Your task to perform on an android device: add a contact Image 0: 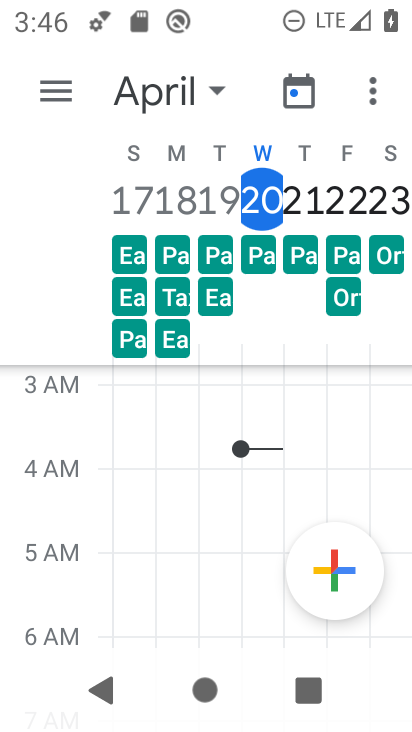
Step 0: press home button
Your task to perform on an android device: add a contact Image 1: 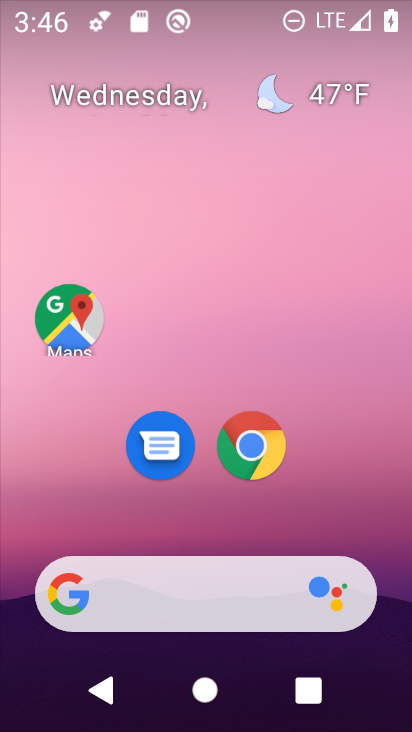
Step 1: drag from (220, 503) to (273, 105)
Your task to perform on an android device: add a contact Image 2: 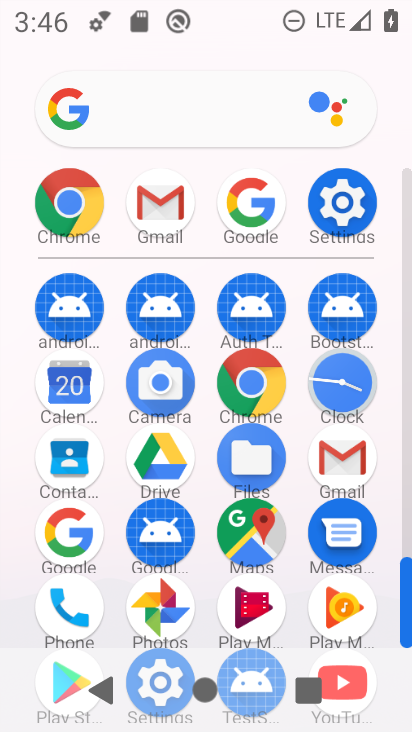
Step 2: click (73, 464)
Your task to perform on an android device: add a contact Image 3: 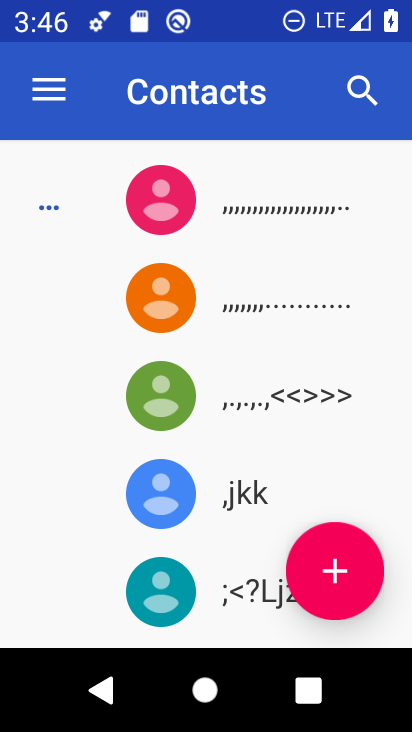
Step 3: click (346, 569)
Your task to perform on an android device: add a contact Image 4: 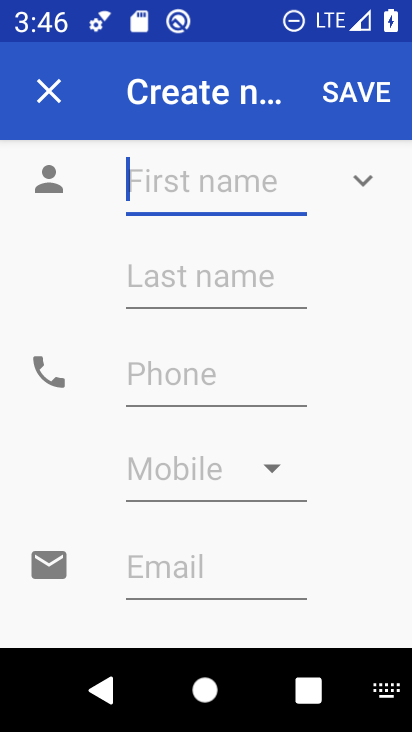
Step 4: click (178, 199)
Your task to perform on an android device: add a contact Image 5: 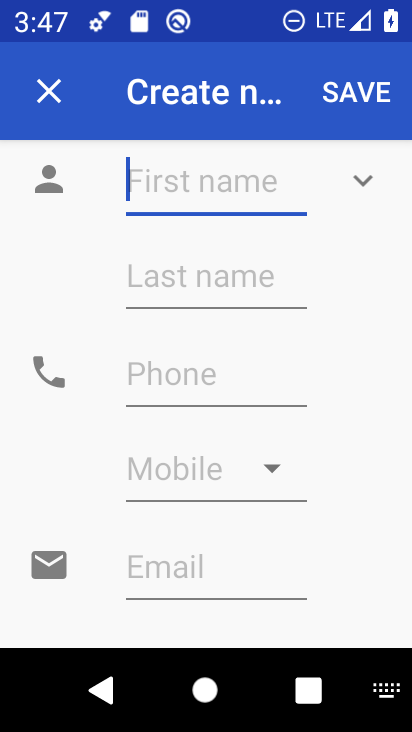
Step 5: type "Chandrachur"
Your task to perform on an android device: add a contact Image 6: 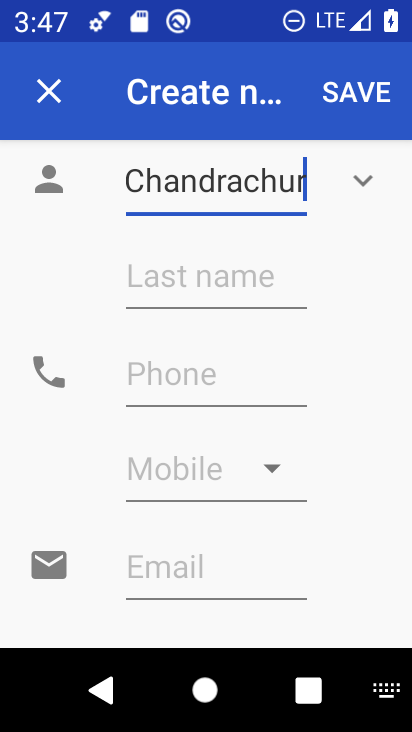
Step 6: click (236, 278)
Your task to perform on an android device: add a contact Image 7: 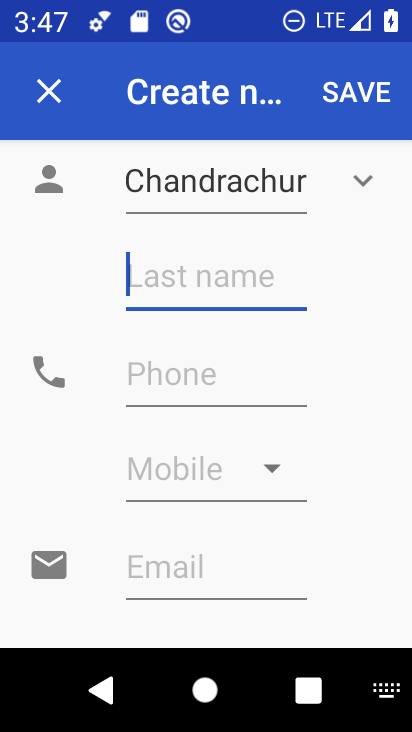
Step 7: type "Singh"
Your task to perform on an android device: add a contact Image 8: 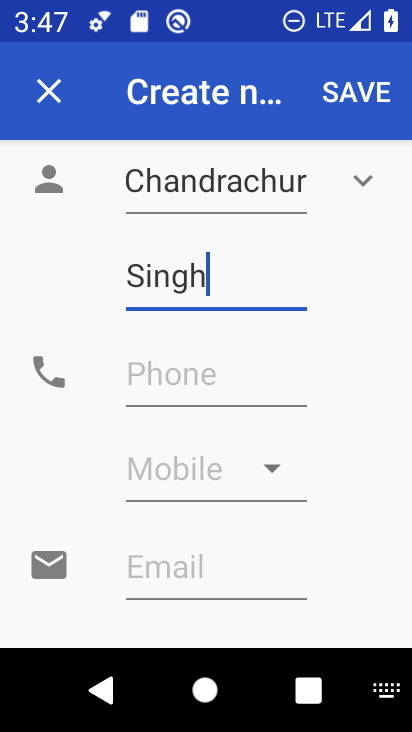
Step 8: click (199, 384)
Your task to perform on an android device: add a contact Image 9: 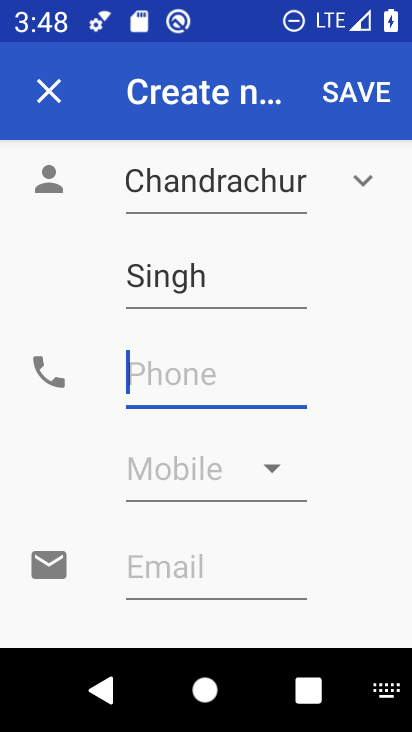
Step 9: type "009988776655"
Your task to perform on an android device: add a contact Image 10: 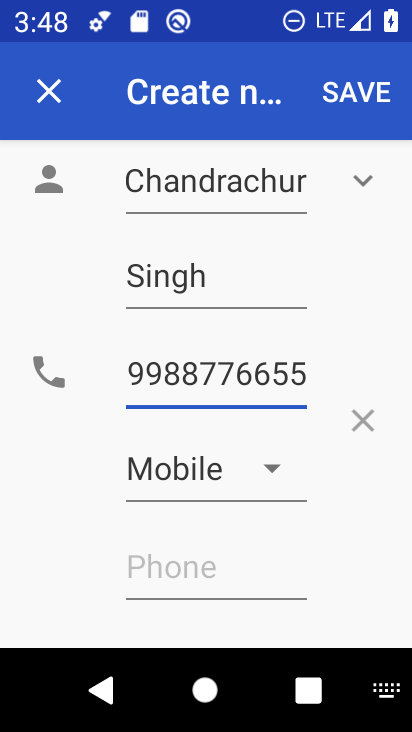
Step 10: click (368, 89)
Your task to perform on an android device: add a contact Image 11: 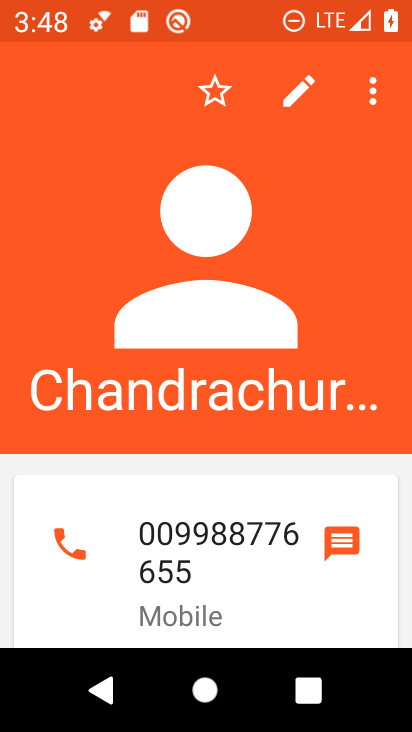
Step 11: task complete